Your task to perform on an android device: see creations saved in the google photos Image 0: 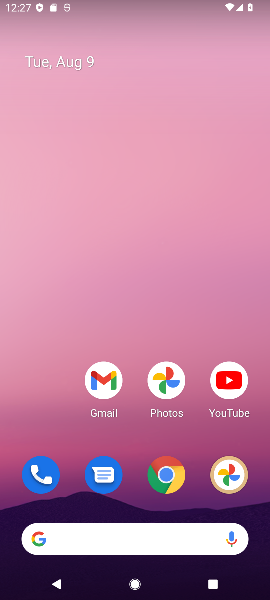
Step 0: click (166, 373)
Your task to perform on an android device: see creations saved in the google photos Image 1: 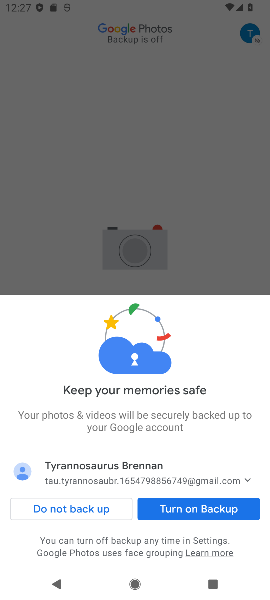
Step 1: click (68, 512)
Your task to perform on an android device: see creations saved in the google photos Image 2: 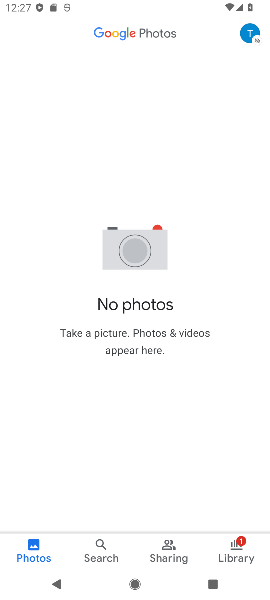
Step 2: click (107, 547)
Your task to perform on an android device: see creations saved in the google photos Image 3: 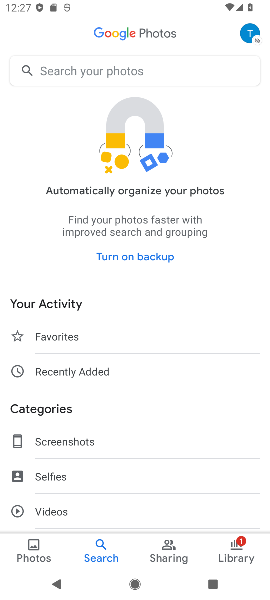
Step 3: drag from (125, 513) to (130, 118)
Your task to perform on an android device: see creations saved in the google photos Image 4: 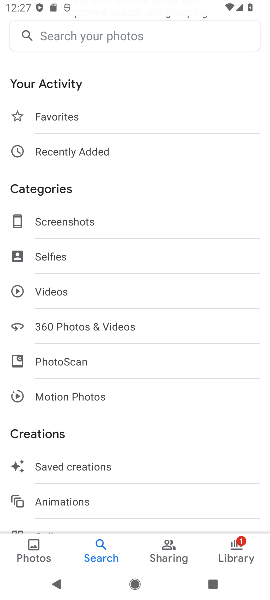
Step 4: click (75, 466)
Your task to perform on an android device: see creations saved in the google photos Image 5: 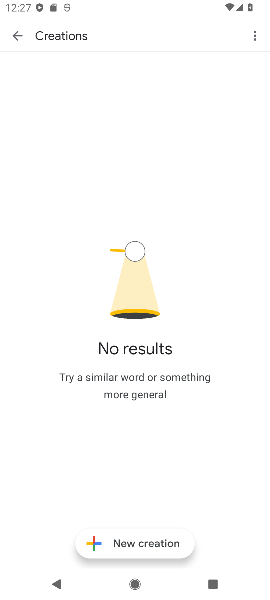
Step 5: task complete